Your task to perform on an android device: What is the news today? Image 0: 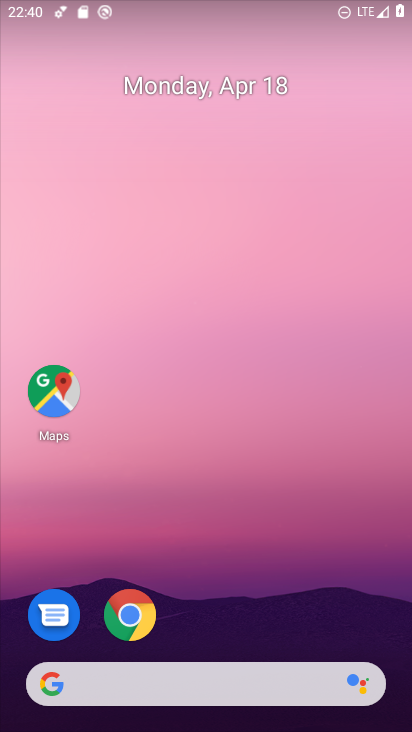
Step 0: drag from (82, 244) to (402, 326)
Your task to perform on an android device: What is the news today? Image 1: 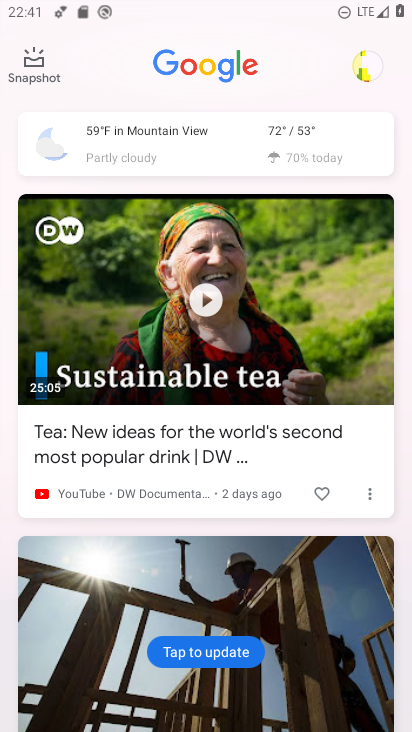
Step 1: task complete